Your task to perform on an android device: set default search engine in the chrome app Image 0: 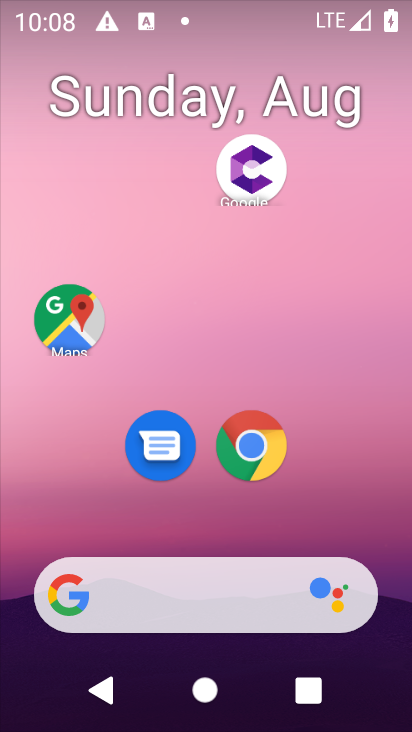
Step 0: press home button
Your task to perform on an android device: set default search engine in the chrome app Image 1: 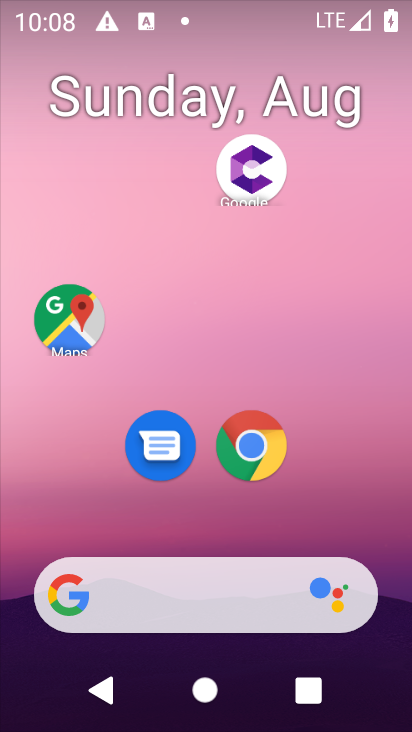
Step 1: click (249, 441)
Your task to perform on an android device: set default search engine in the chrome app Image 2: 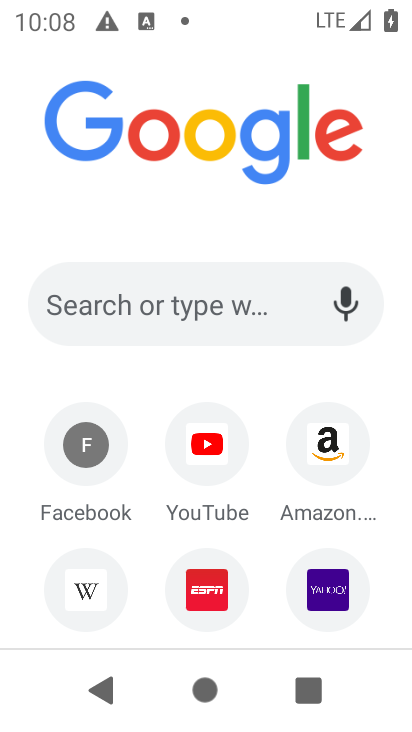
Step 2: drag from (263, 214) to (247, 570)
Your task to perform on an android device: set default search engine in the chrome app Image 3: 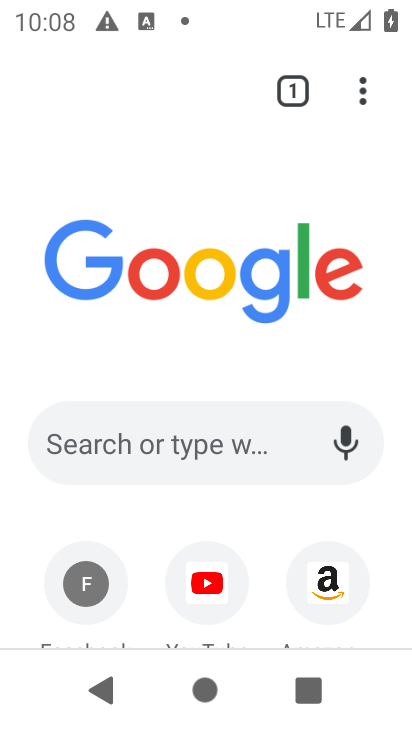
Step 3: click (356, 88)
Your task to perform on an android device: set default search engine in the chrome app Image 4: 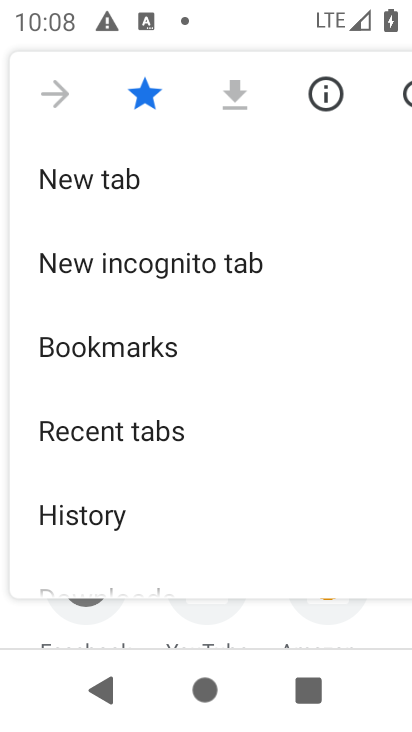
Step 4: drag from (142, 531) to (190, 1)
Your task to perform on an android device: set default search engine in the chrome app Image 5: 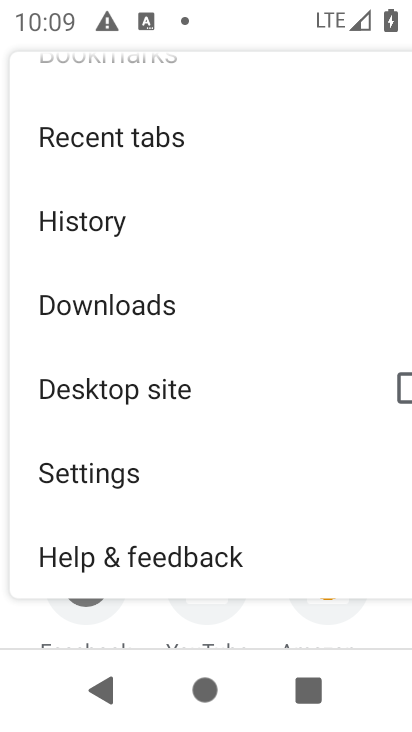
Step 5: click (151, 476)
Your task to perform on an android device: set default search engine in the chrome app Image 6: 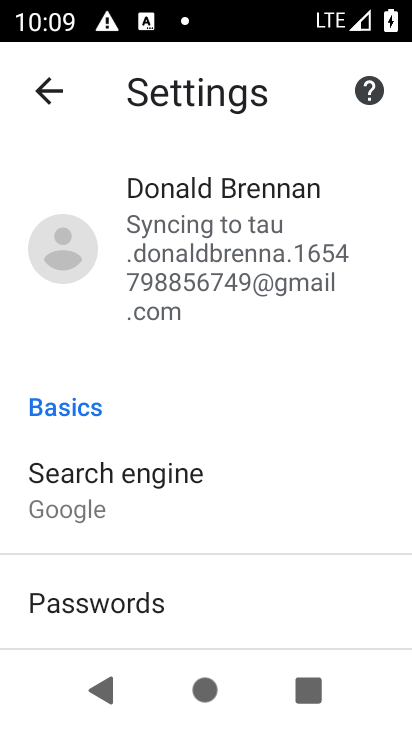
Step 6: click (145, 486)
Your task to perform on an android device: set default search engine in the chrome app Image 7: 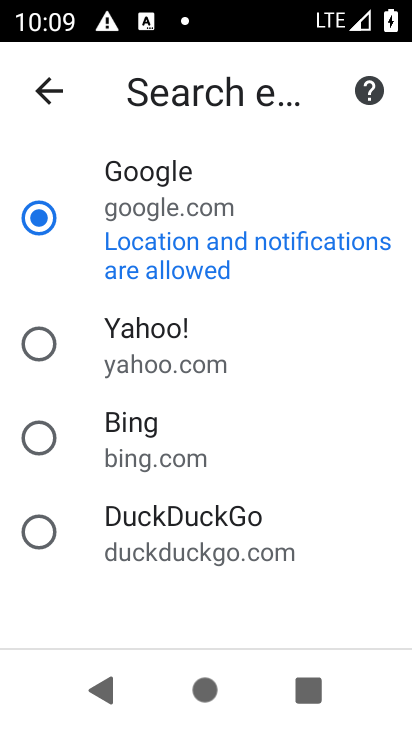
Step 7: click (37, 339)
Your task to perform on an android device: set default search engine in the chrome app Image 8: 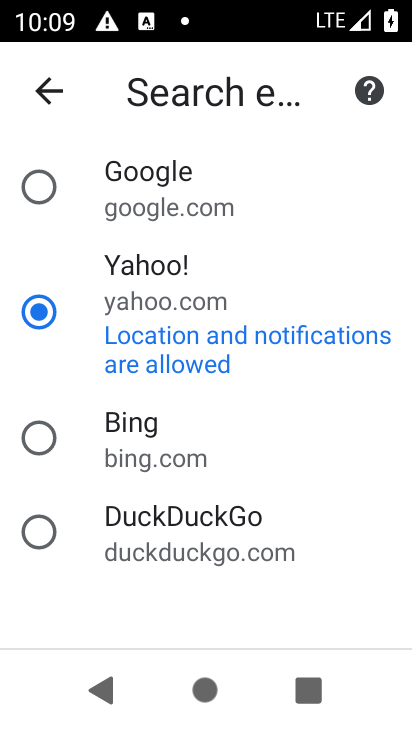
Step 8: task complete